Your task to perform on an android device: turn on sleep mode Image 0: 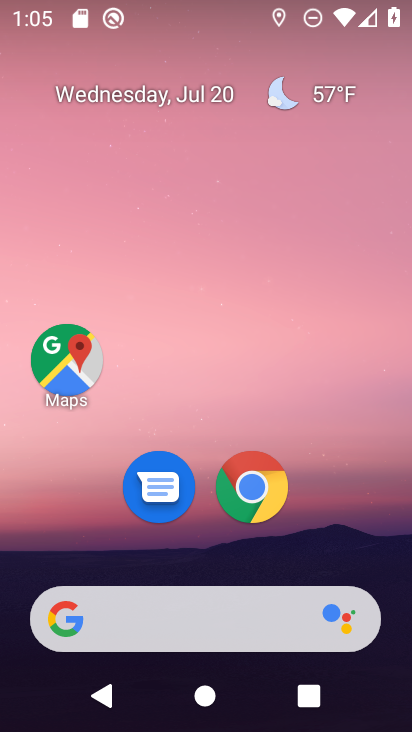
Step 0: press home button
Your task to perform on an android device: turn on sleep mode Image 1: 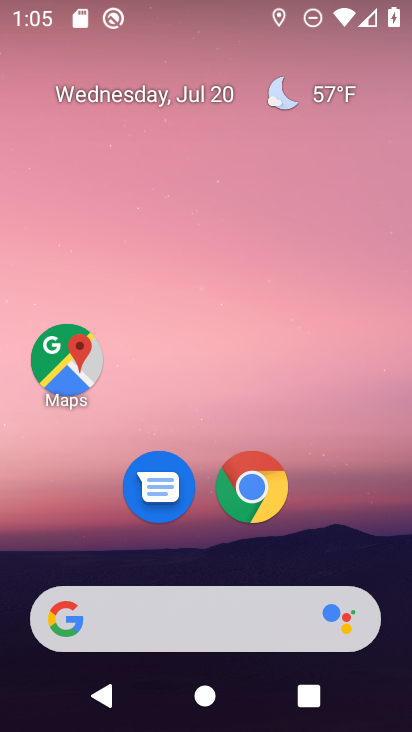
Step 1: click (357, 102)
Your task to perform on an android device: turn on sleep mode Image 2: 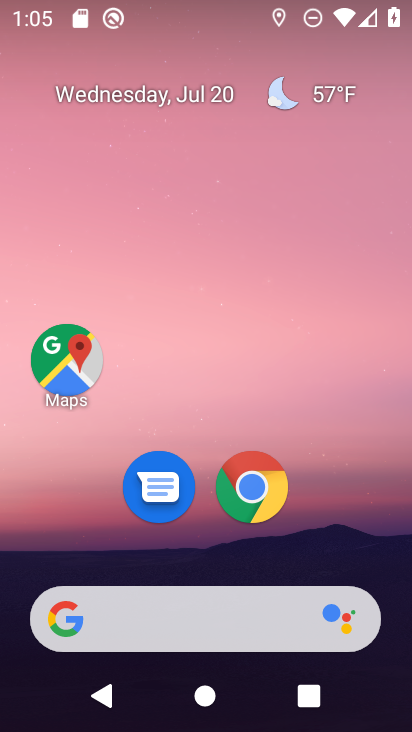
Step 2: drag from (356, 540) to (336, 89)
Your task to perform on an android device: turn on sleep mode Image 3: 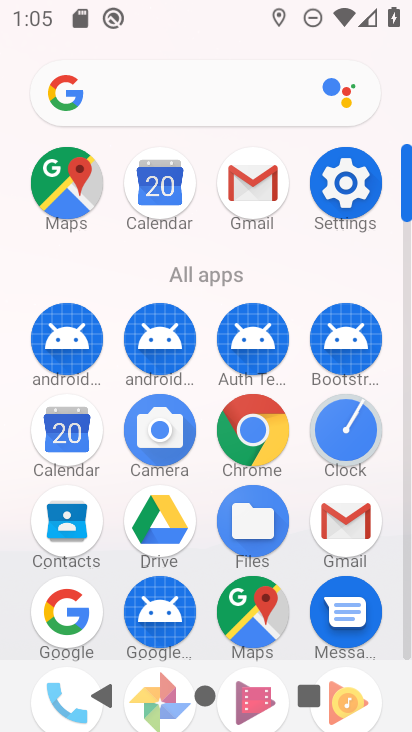
Step 3: click (347, 194)
Your task to perform on an android device: turn on sleep mode Image 4: 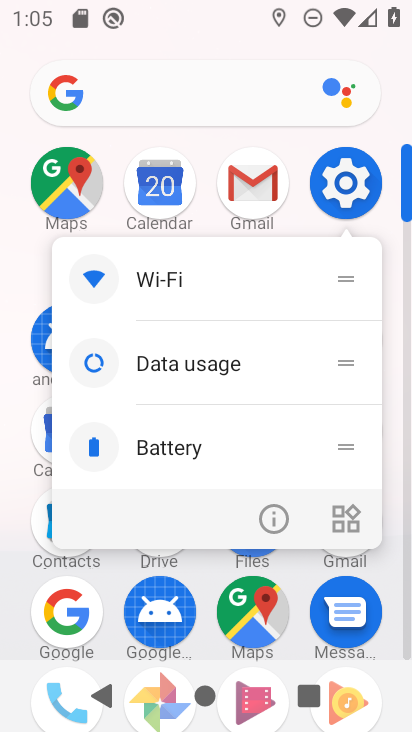
Step 4: click (346, 193)
Your task to perform on an android device: turn on sleep mode Image 5: 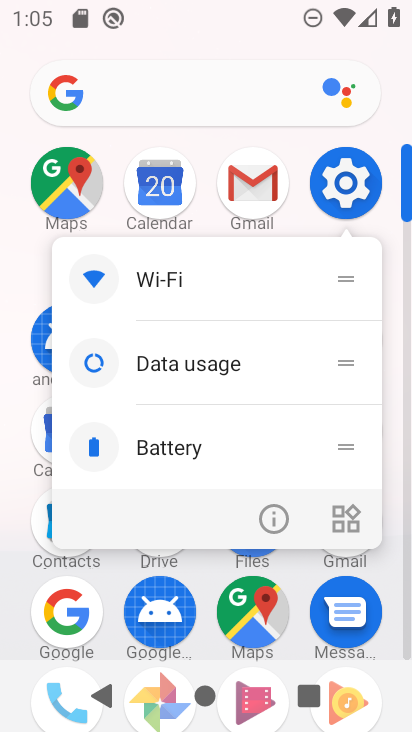
Step 5: click (346, 193)
Your task to perform on an android device: turn on sleep mode Image 6: 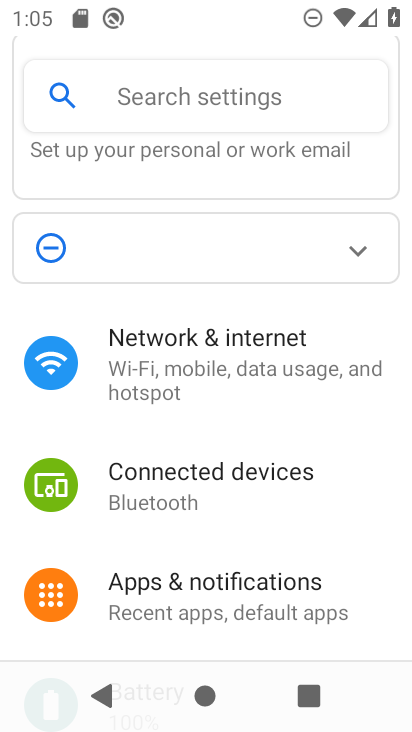
Step 6: drag from (370, 480) to (361, 408)
Your task to perform on an android device: turn on sleep mode Image 7: 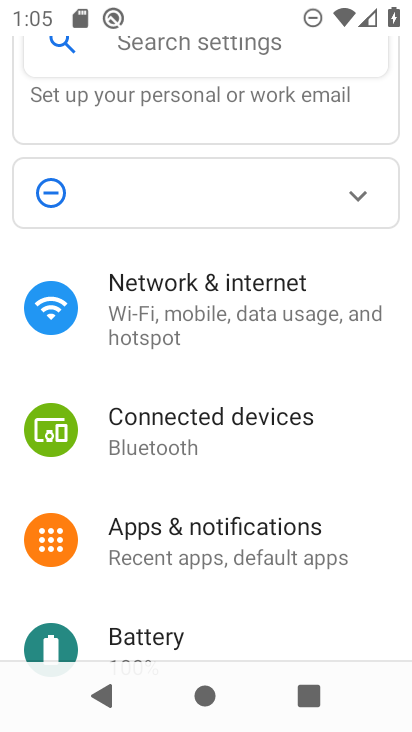
Step 7: drag from (337, 585) to (334, 413)
Your task to perform on an android device: turn on sleep mode Image 8: 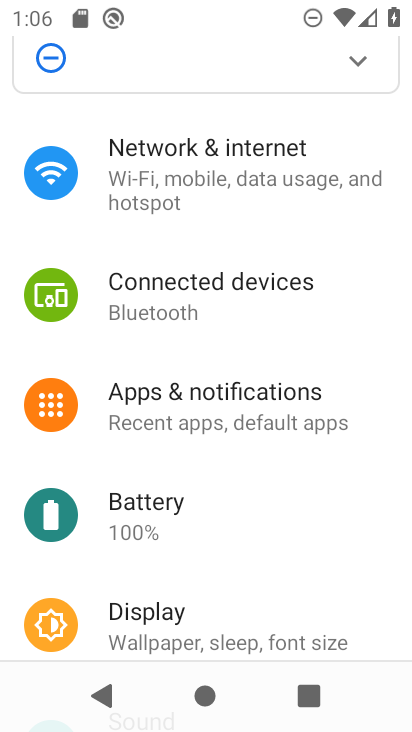
Step 8: drag from (359, 539) to (358, 390)
Your task to perform on an android device: turn on sleep mode Image 9: 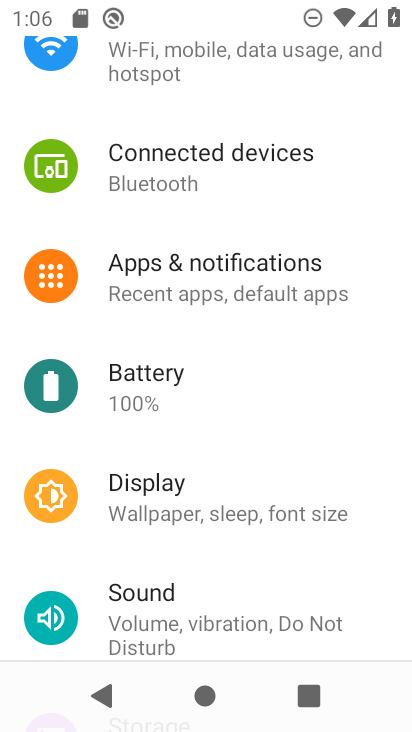
Step 9: click (257, 510)
Your task to perform on an android device: turn on sleep mode Image 10: 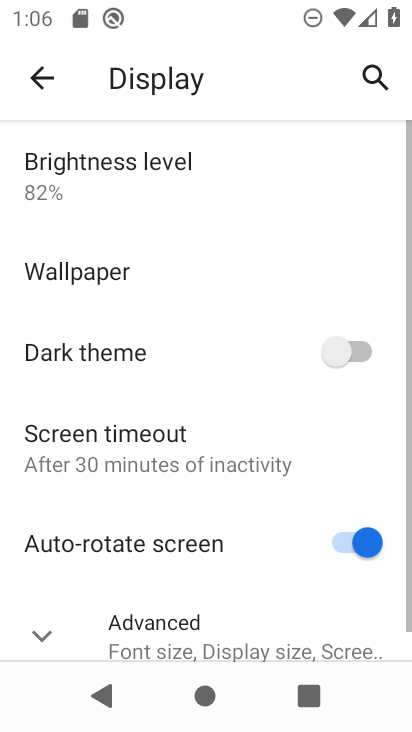
Step 10: drag from (265, 484) to (270, 610)
Your task to perform on an android device: turn on sleep mode Image 11: 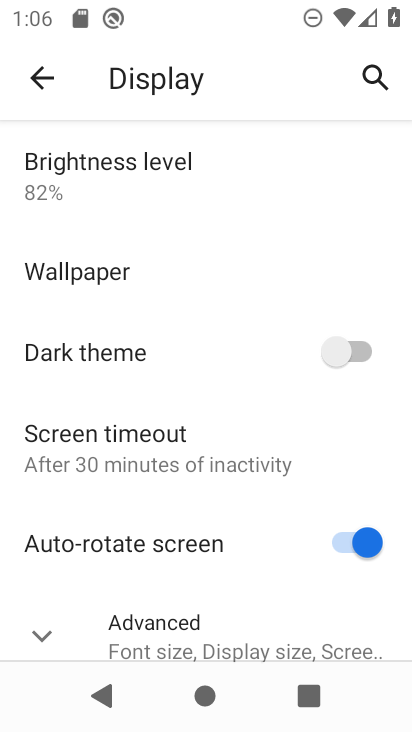
Step 11: click (172, 630)
Your task to perform on an android device: turn on sleep mode Image 12: 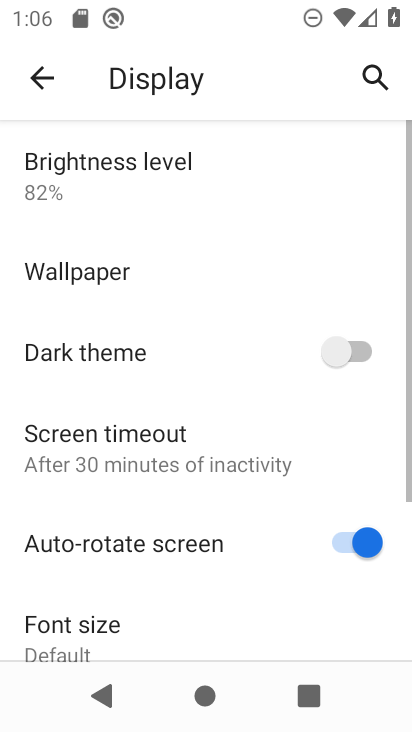
Step 12: task complete